Your task to perform on an android device: turn on priority inbox in the gmail app Image 0: 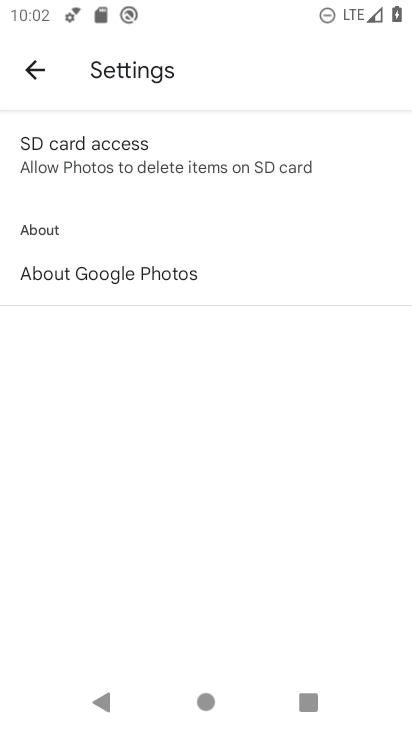
Step 0: press home button
Your task to perform on an android device: turn on priority inbox in the gmail app Image 1: 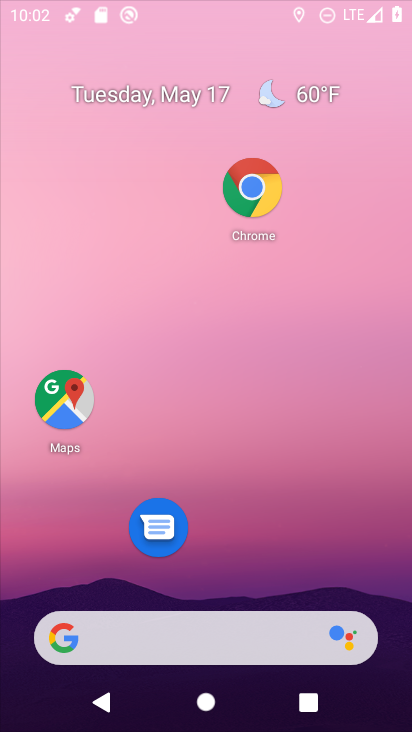
Step 1: press home button
Your task to perform on an android device: turn on priority inbox in the gmail app Image 2: 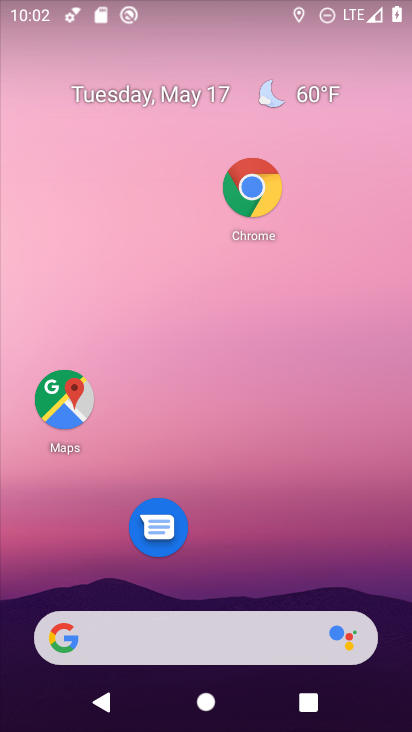
Step 2: drag from (284, 509) to (362, 0)
Your task to perform on an android device: turn on priority inbox in the gmail app Image 3: 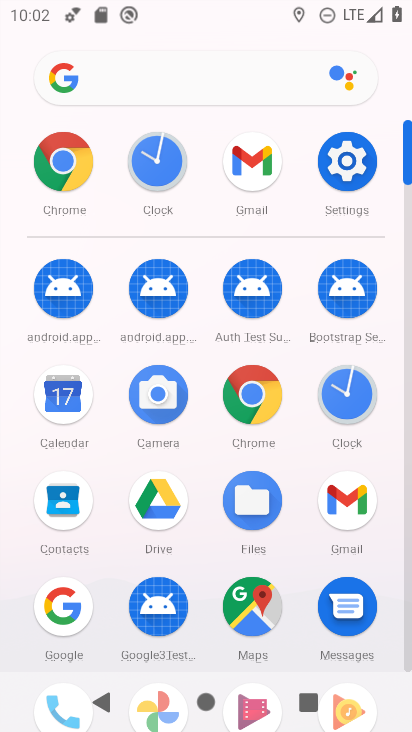
Step 3: click (349, 228)
Your task to perform on an android device: turn on priority inbox in the gmail app Image 4: 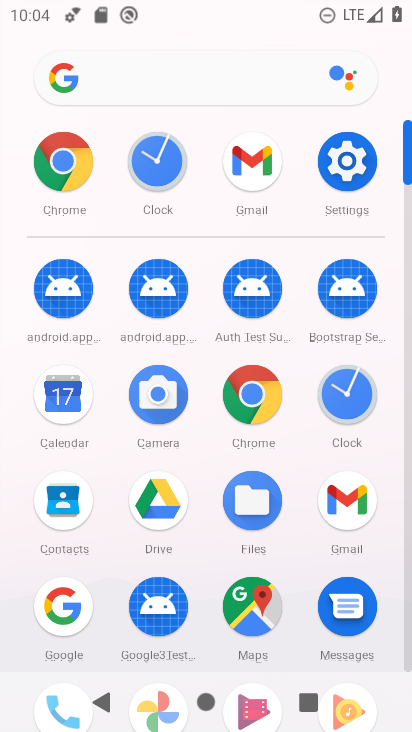
Step 4: click (268, 210)
Your task to perform on an android device: turn on priority inbox in the gmail app Image 5: 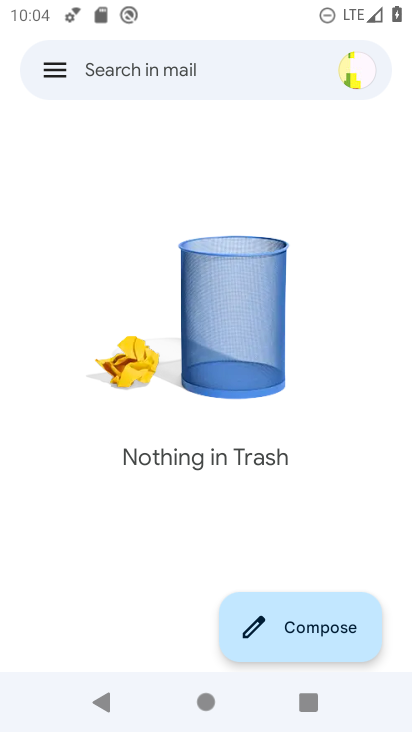
Step 5: click (62, 73)
Your task to perform on an android device: turn on priority inbox in the gmail app Image 6: 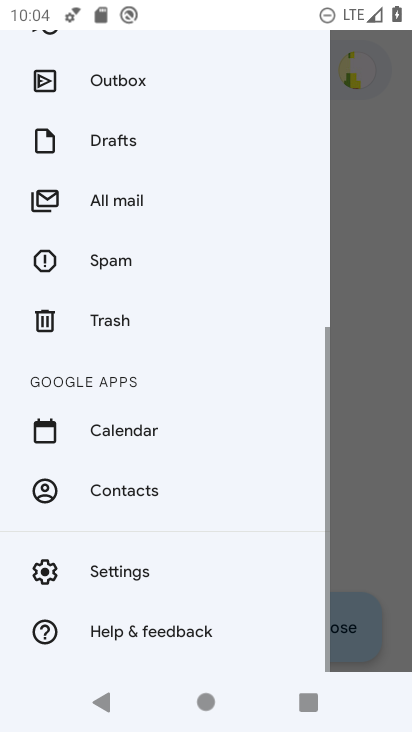
Step 6: drag from (114, 495) to (149, 267)
Your task to perform on an android device: turn on priority inbox in the gmail app Image 7: 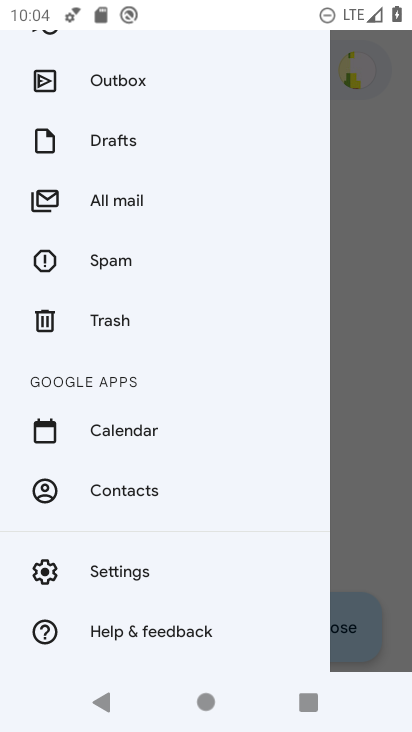
Step 7: click (129, 554)
Your task to perform on an android device: turn on priority inbox in the gmail app Image 8: 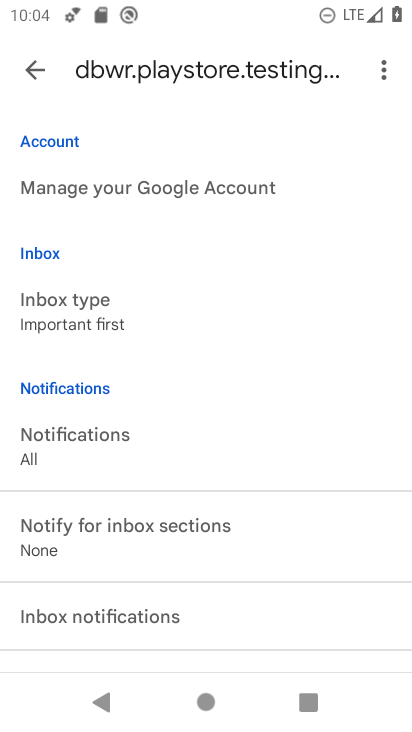
Step 8: click (182, 321)
Your task to perform on an android device: turn on priority inbox in the gmail app Image 9: 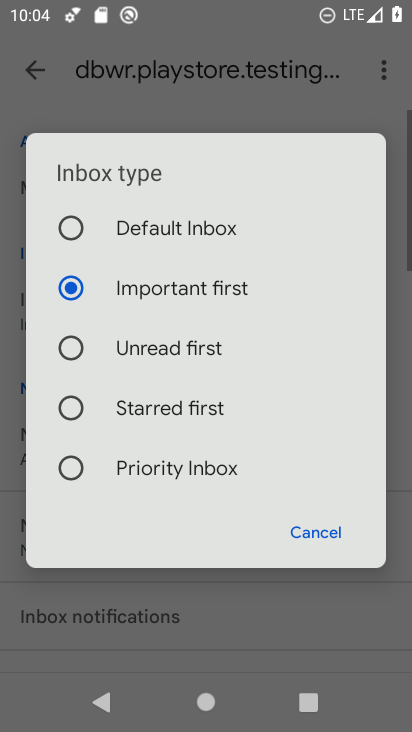
Step 9: click (168, 470)
Your task to perform on an android device: turn on priority inbox in the gmail app Image 10: 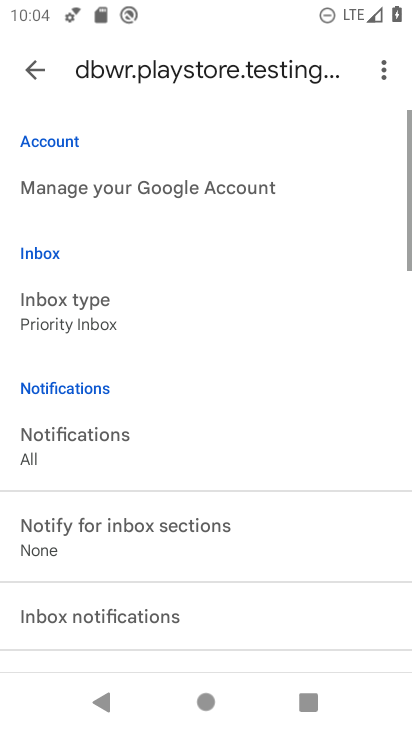
Step 10: task complete